Your task to perform on an android device: Open settings Image 0: 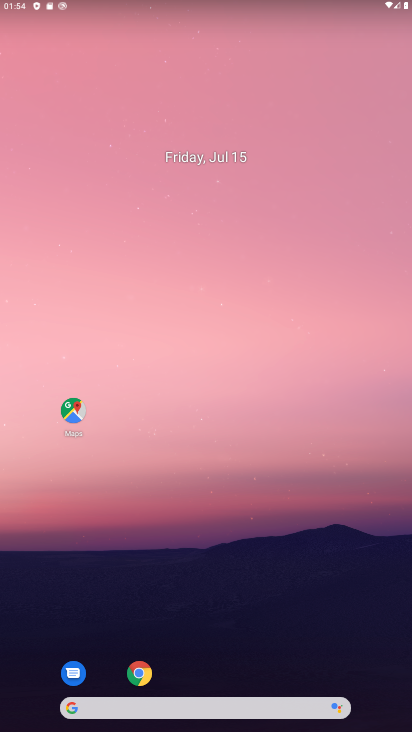
Step 0: drag from (283, 650) to (276, 184)
Your task to perform on an android device: Open settings Image 1: 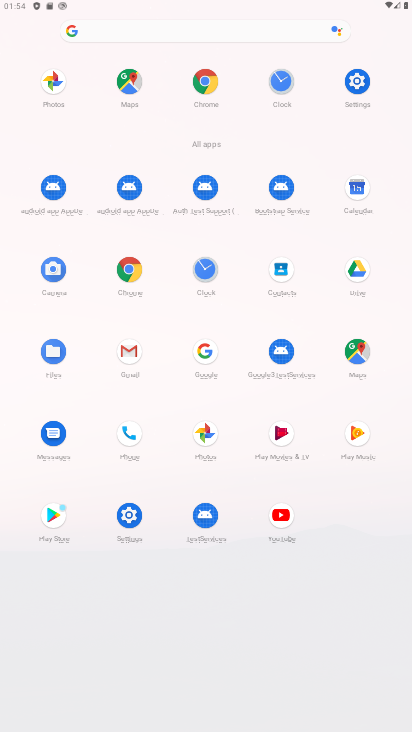
Step 1: click (350, 73)
Your task to perform on an android device: Open settings Image 2: 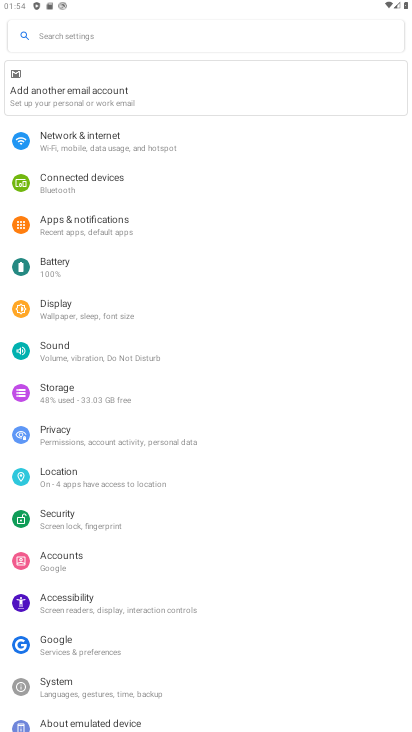
Step 2: task complete